Your task to perform on an android device: toggle improve location accuracy Image 0: 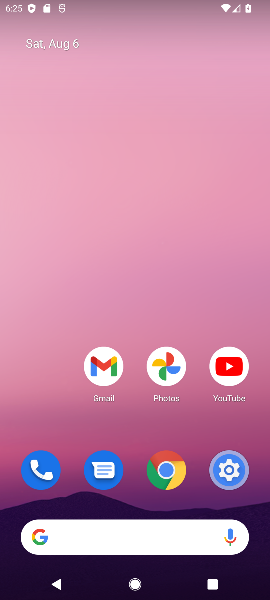
Step 0: press home button
Your task to perform on an android device: toggle improve location accuracy Image 1: 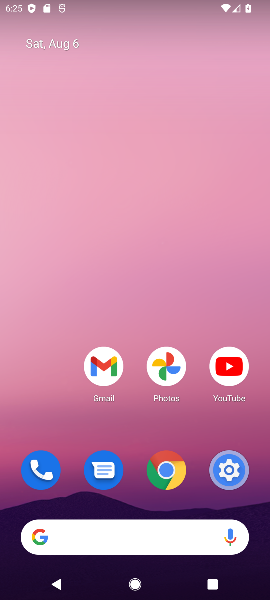
Step 1: drag from (87, 450) to (82, 48)
Your task to perform on an android device: toggle improve location accuracy Image 2: 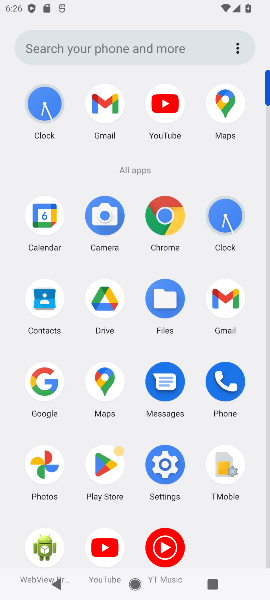
Step 2: click (149, 460)
Your task to perform on an android device: toggle improve location accuracy Image 3: 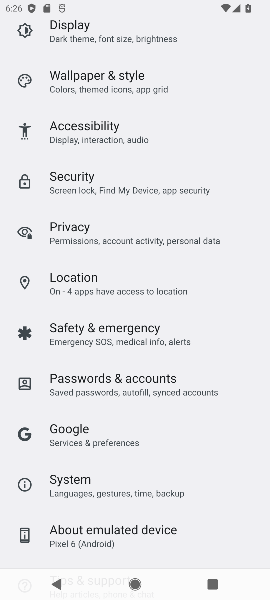
Step 3: click (112, 291)
Your task to perform on an android device: toggle improve location accuracy Image 4: 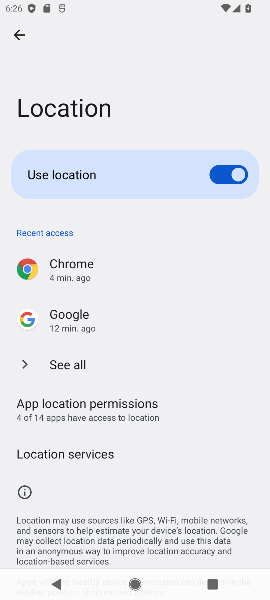
Step 4: drag from (112, 497) to (105, 0)
Your task to perform on an android device: toggle improve location accuracy Image 5: 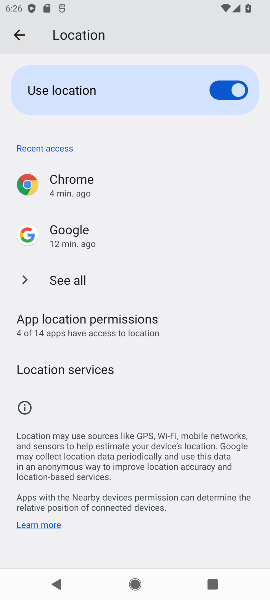
Step 5: click (132, 330)
Your task to perform on an android device: toggle improve location accuracy Image 6: 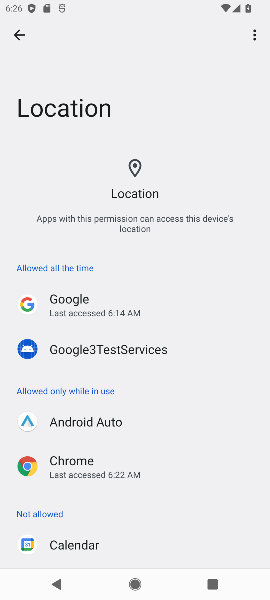
Step 6: task complete